Your task to perform on an android device: Show me popular videos on Youtube Image 0: 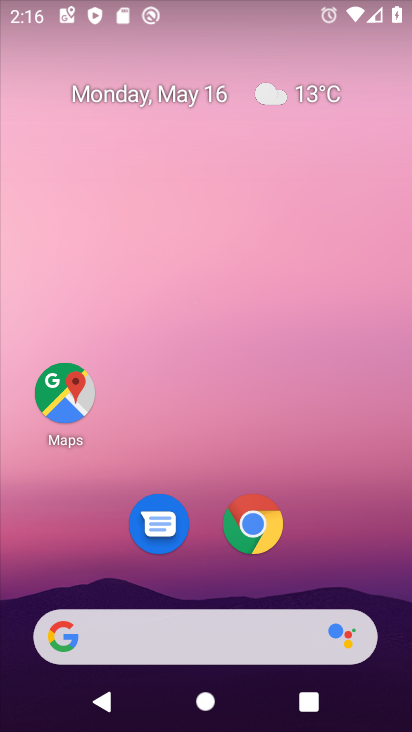
Step 0: drag from (325, 455) to (301, 68)
Your task to perform on an android device: Show me popular videos on Youtube Image 1: 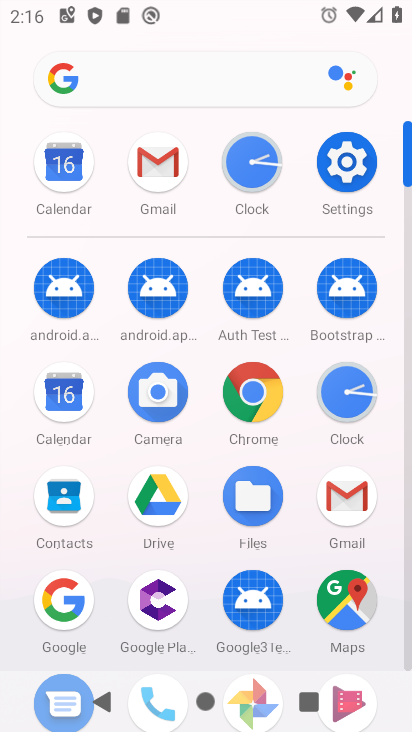
Step 1: drag from (206, 509) to (202, 169)
Your task to perform on an android device: Show me popular videos on Youtube Image 2: 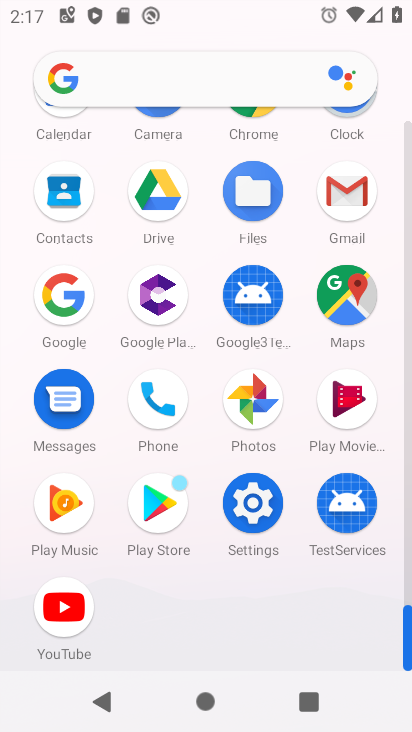
Step 2: click (62, 595)
Your task to perform on an android device: Show me popular videos on Youtube Image 3: 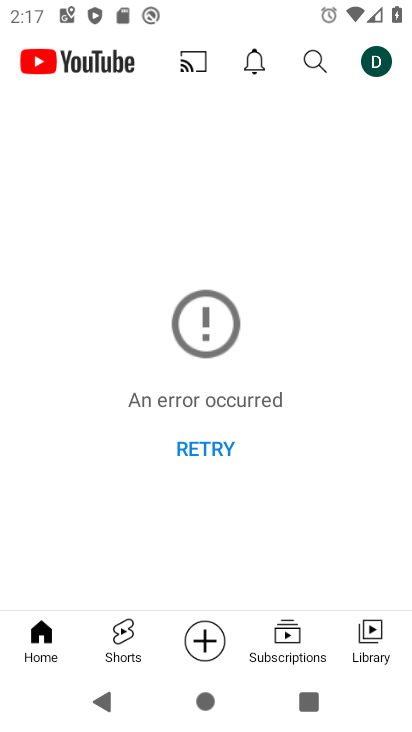
Step 3: click (201, 434)
Your task to perform on an android device: Show me popular videos on Youtube Image 4: 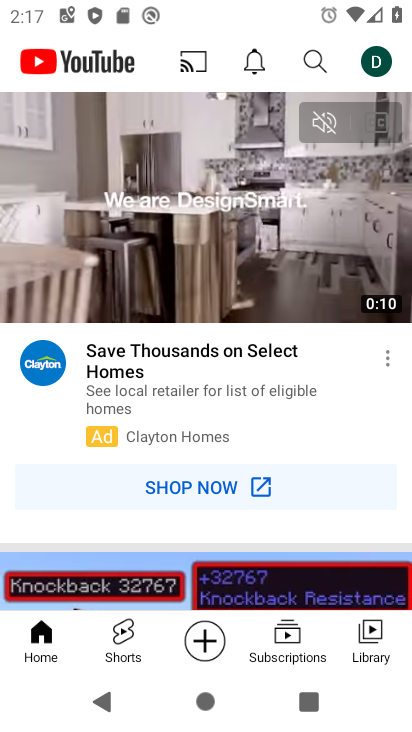
Step 4: click (118, 622)
Your task to perform on an android device: Show me popular videos on Youtube Image 5: 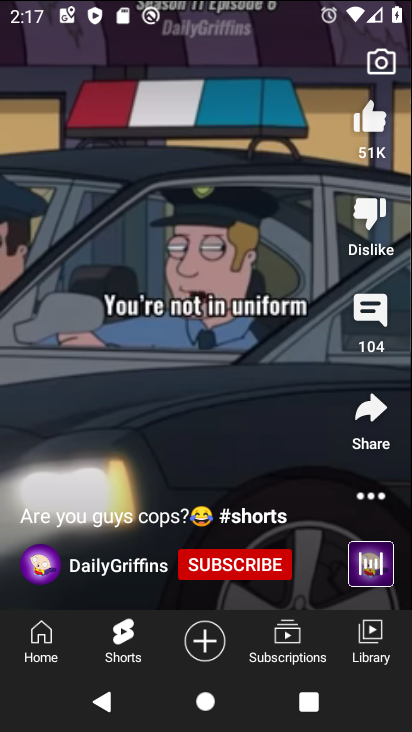
Step 5: click (42, 641)
Your task to perform on an android device: Show me popular videos on Youtube Image 6: 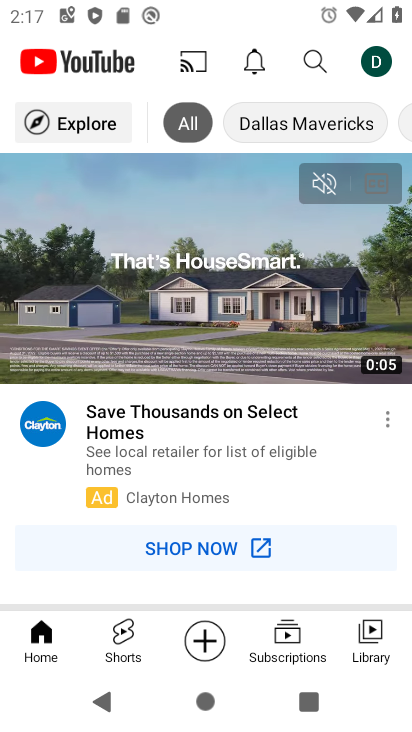
Step 6: click (256, 60)
Your task to perform on an android device: Show me popular videos on Youtube Image 7: 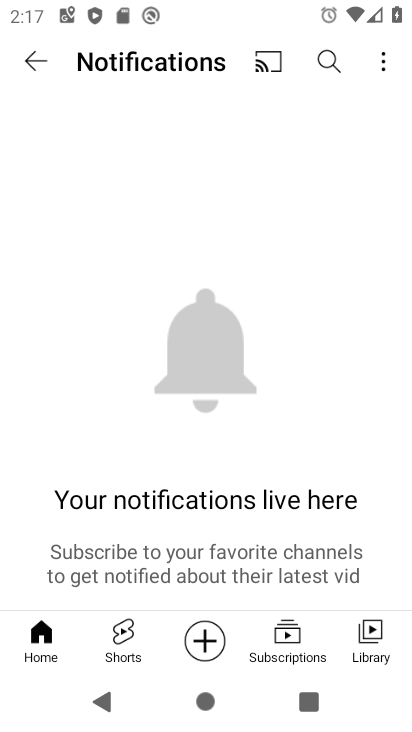
Step 7: click (27, 59)
Your task to perform on an android device: Show me popular videos on Youtube Image 8: 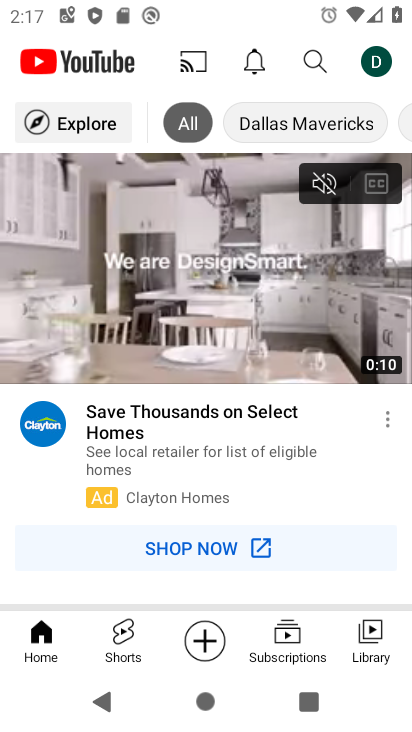
Step 8: click (320, 61)
Your task to perform on an android device: Show me popular videos on Youtube Image 9: 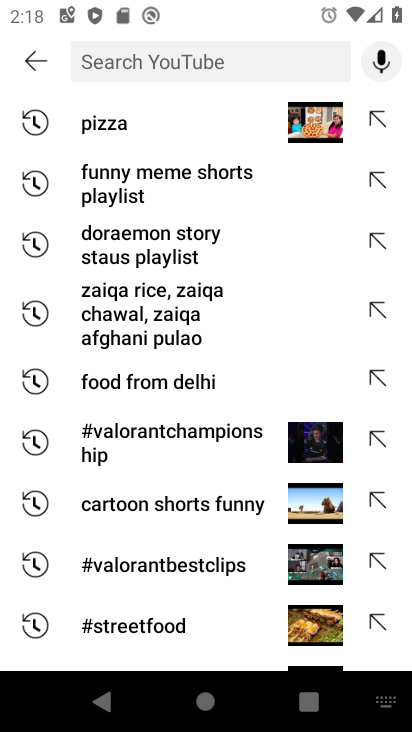
Step 9: type "popular videos on youtube"
Your task to perform on an android device: Show me popular videos on Youtube Image 10: 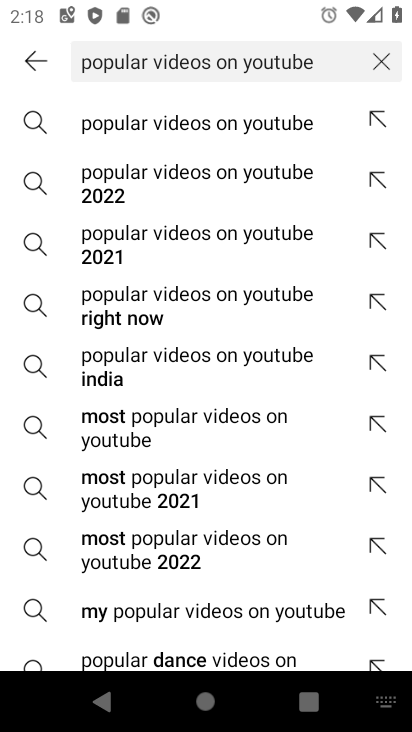
Step 10: click (234, 111)
Your task to perform on an android device: Show me popular videos on Youtube Image 11: 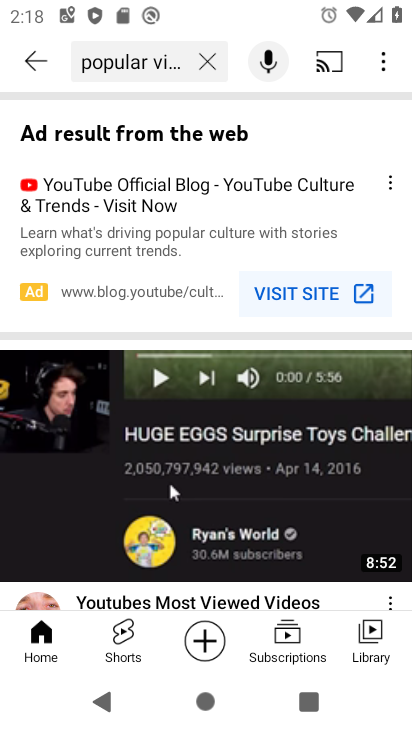
Step 11: task complete